Your task to perform on an android device: Open settings Image 0: 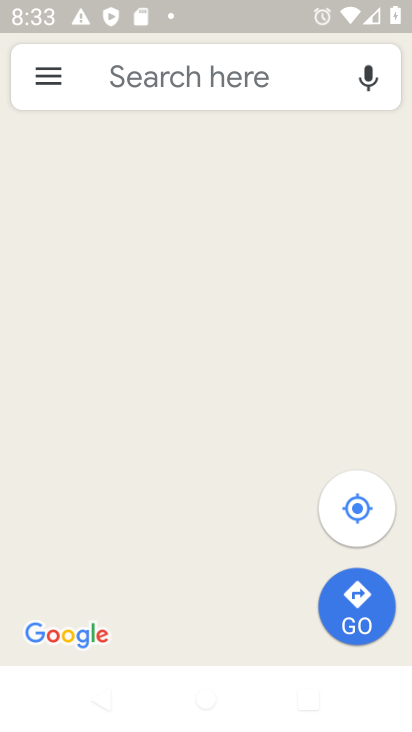
Step 0: press home button
Your task to perform on an android device: Open settings Image 1: 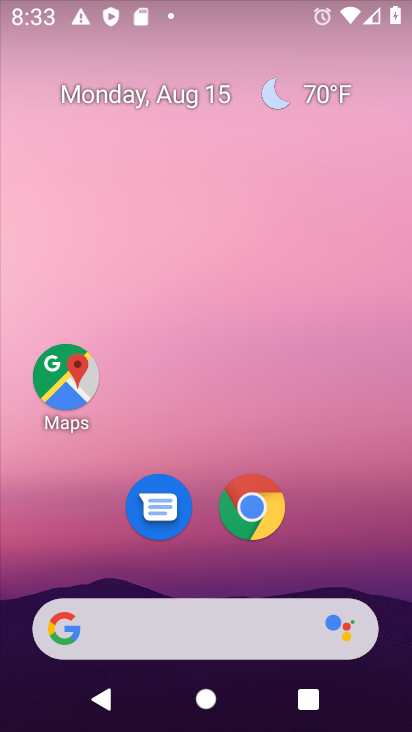
Step 1: drag from (200, 662) to (188, 60)
Your task to perform on an android device: Open settings Image 2: 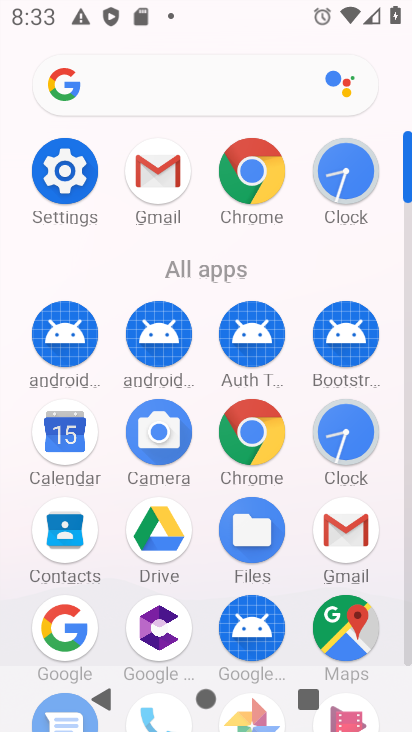
Step 2: click (71, 168)
Your task to perform on an android device: Open settings Image 3: 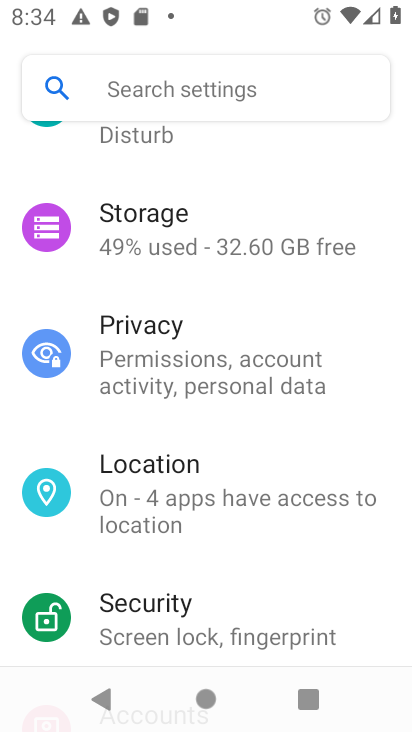
Step 3: task complete